Your task to perform on an android device: Open Wikipedia Image 0: 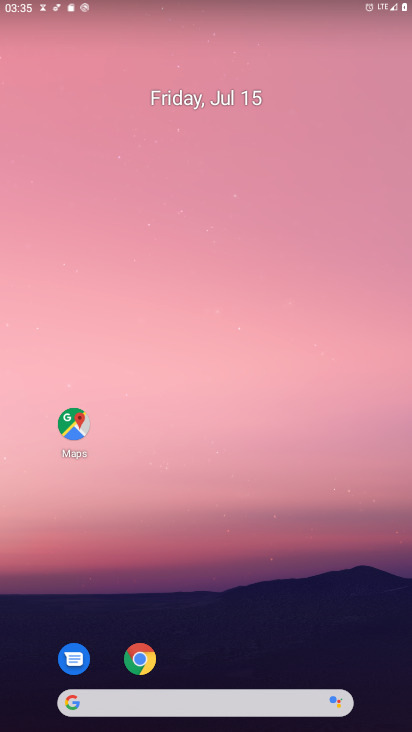
Step 0: drag from (285, 629) to (229, 300)
Your task to perform on an android device: Open Wikipedia Image 1: 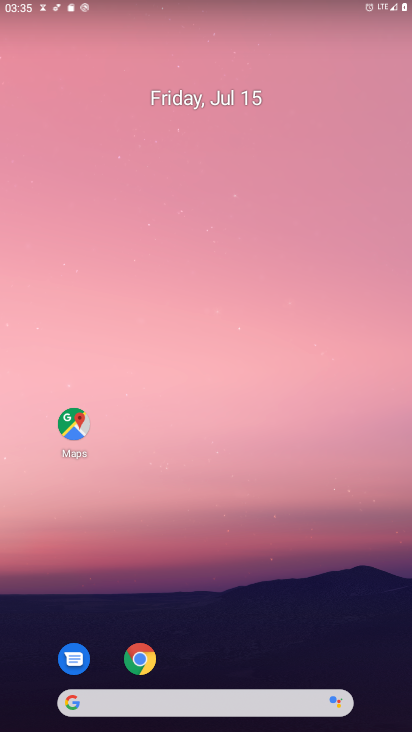
Step 1: drag from (209, 683) to (213, 120)
Your task to perform on an android device: Open Wikipedia Image 2: 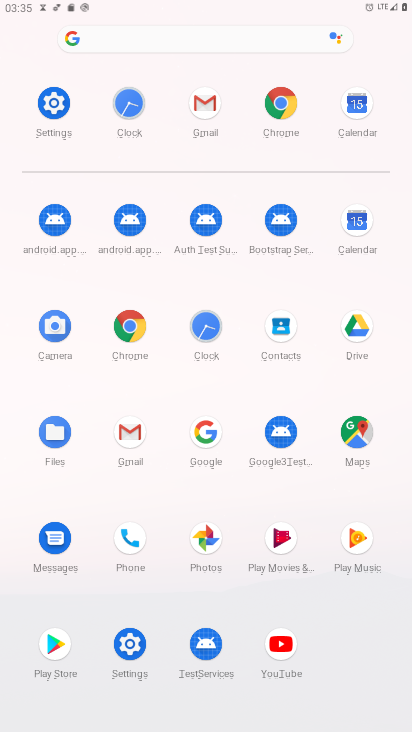
Step 2: click (285, 101)
Your task to perform on an android device: Open Wikipedia Image 3: 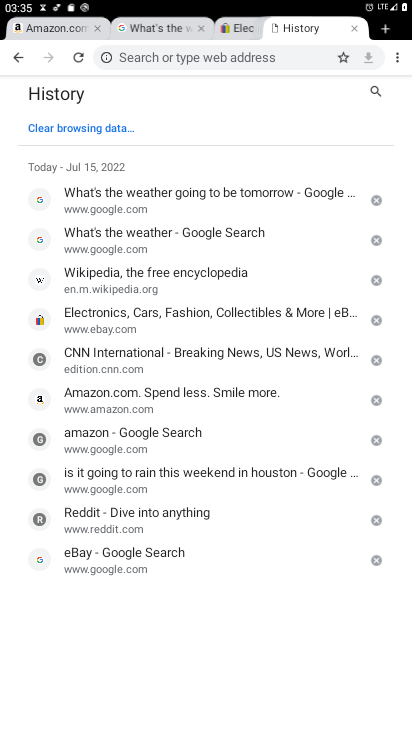
Step 3: click (383, 27)
Your task to perform on an android device: Open Wikipedia Image 4: 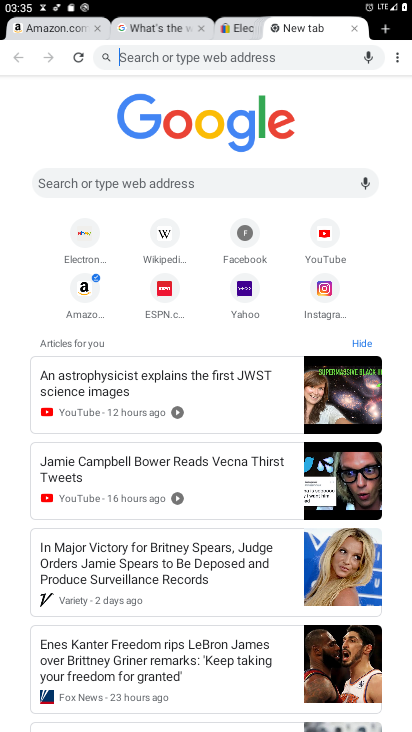
Step 4: click (177, 237)
Your task to perform on an android device: Open Wikipedia Image 5: 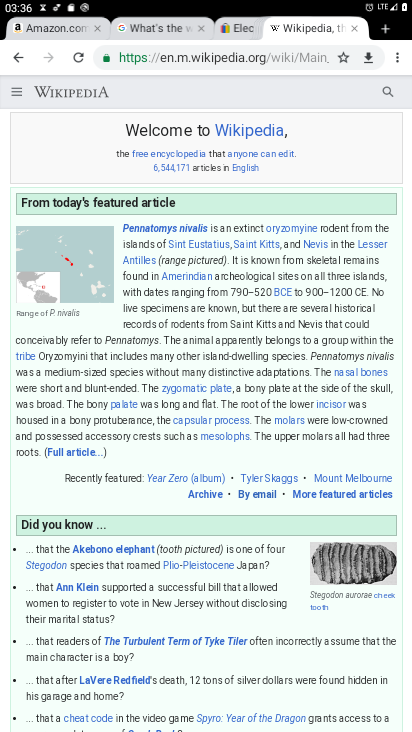
Step 5: task complete